Your task to perform on an android device: turn vacation reply on in the gmail app Image 0: 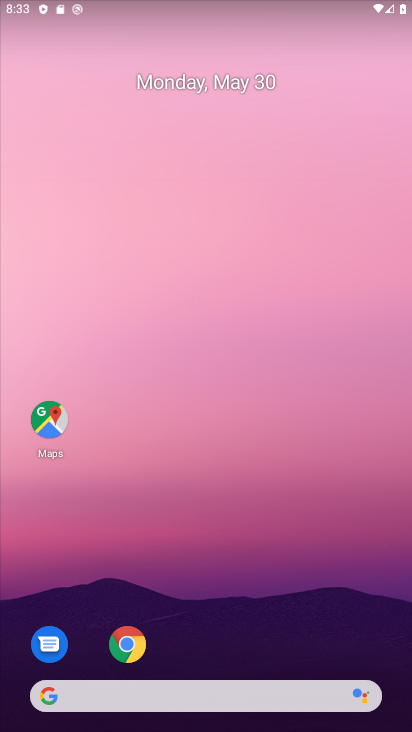
Step 0: drag from (218, 590) to (227, 62)
Your task to perform on an android device: turn vacation reply on in the gmail app Image 1: 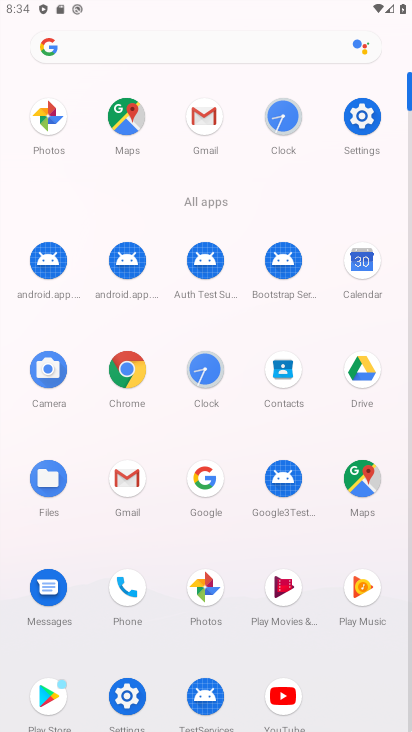
Step 1: click (204, 122)
Your task to perform on an android device: turn vacation reply on in the gmail app Image 2: 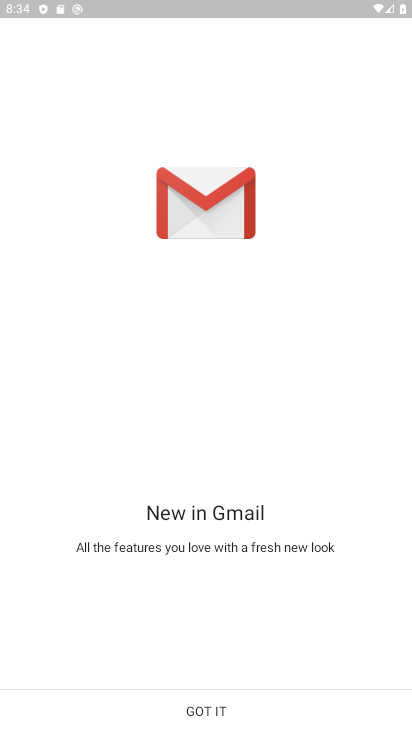
Step 2: click (192, 704)
Your task to perform on an android device: turn vacation reply on in the gmail app Image 3: 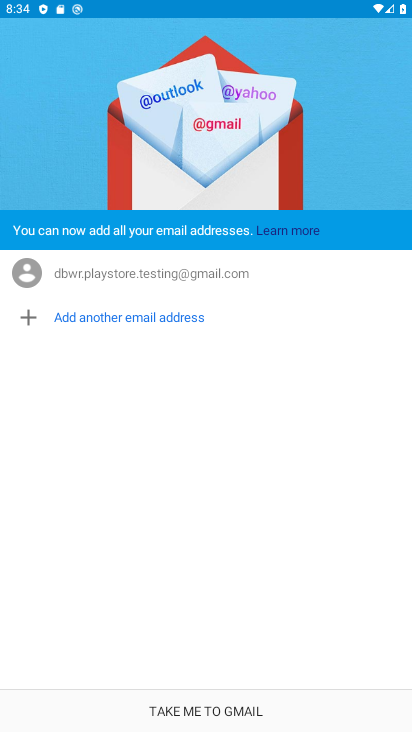
Step 3: click (204, 704)
Your task to perform on an android device: turn vacation reply on in the gmail app Image 4: 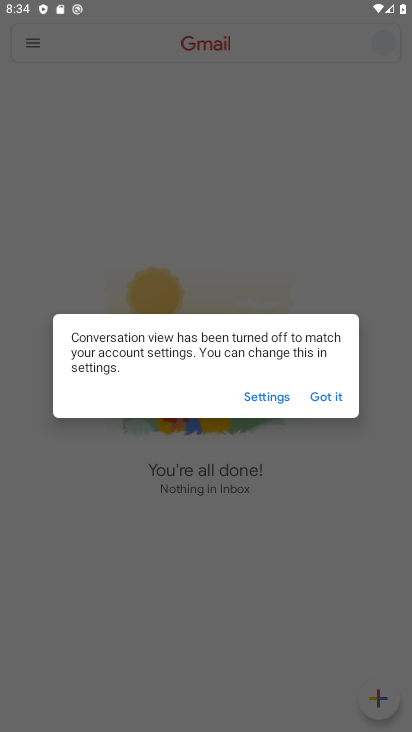
Step 4: click (313, 388)
Your task to perform on an android device: turn vacation reply on in the gmail app Image 5: 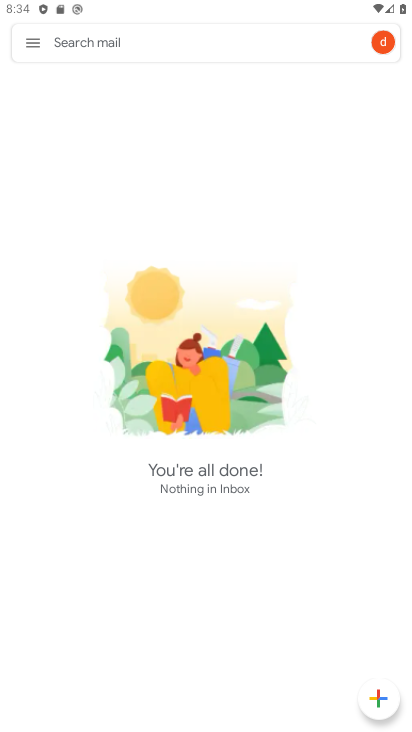
Step 5: click (30, 36)
Your task to perform on an android device: turn vacation reply on in the gmail app Image 6: 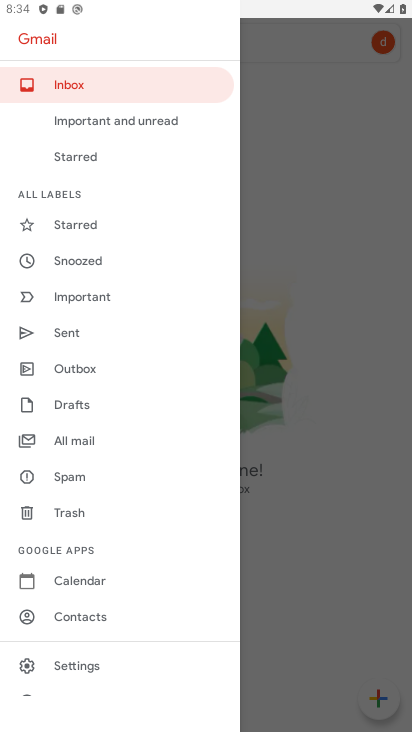
Step 6: click (61, 667)
Your task to perform on an android device: turn vacation reply on in the gmail app Image 7: 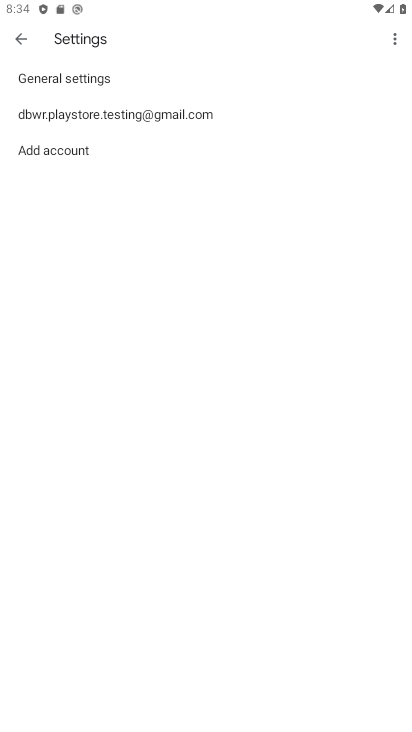
Step 7: click (89, 123)
Your task to perform on an android device: turn vacation reply on in the gmail app Image 8: 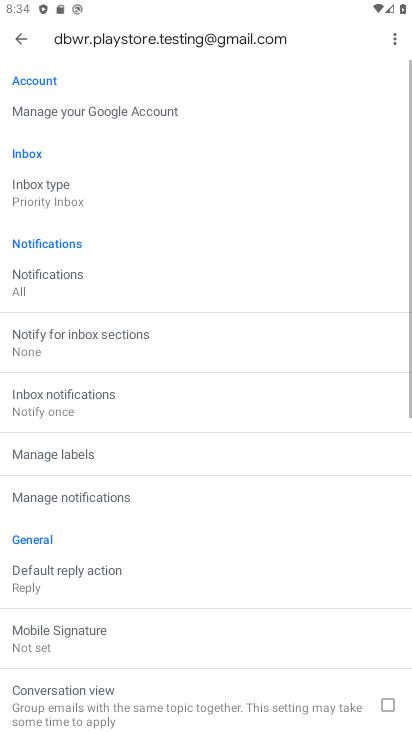
Step 8: drag from (181, 679) to (269, 58)
Your task to perform on an android device: turn vacation reply on in the gmail app Image 9: 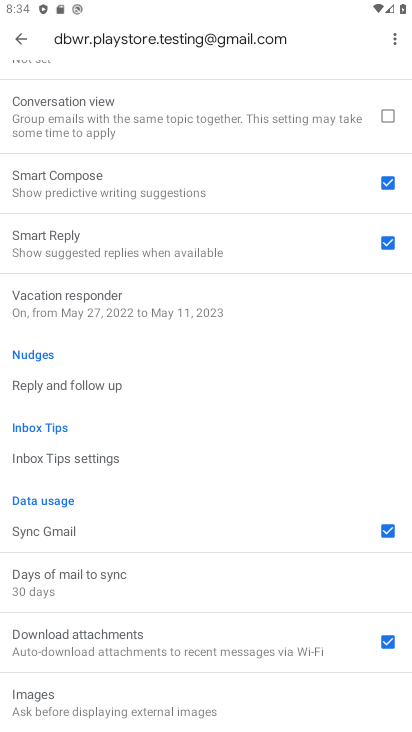
Step 9: click (101, 307)
Your task to perform on an android device: turn vacation reply on in the gmail app Image 10: 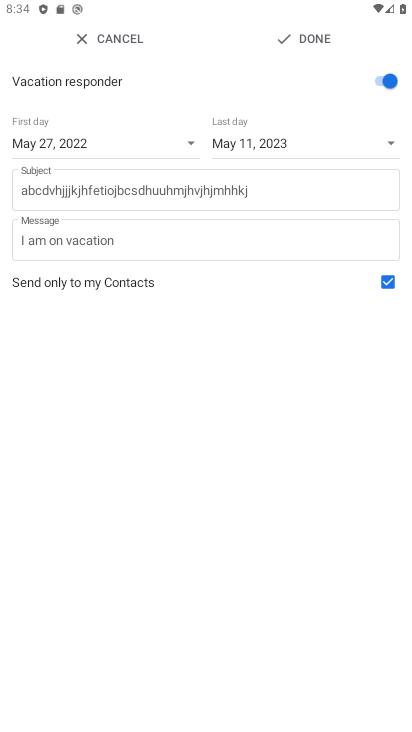
Step 10: task complete